Your task to perform on an android device: turn vacation reply on in the gmail app Image 0: 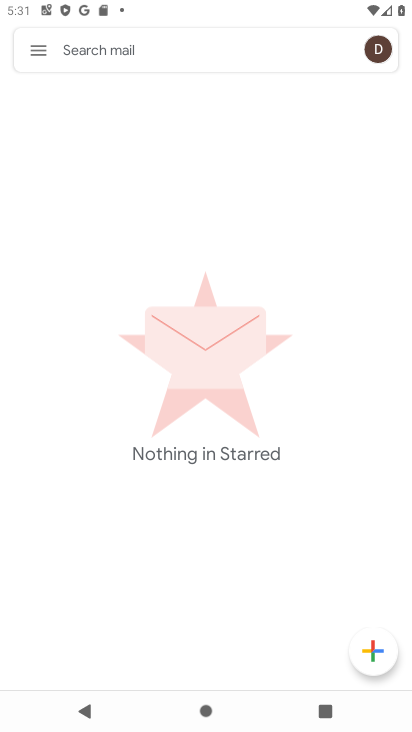
Step 0: press home button
Your task to perform on an android device: turn vacation reply on in the gmail app Image 1: 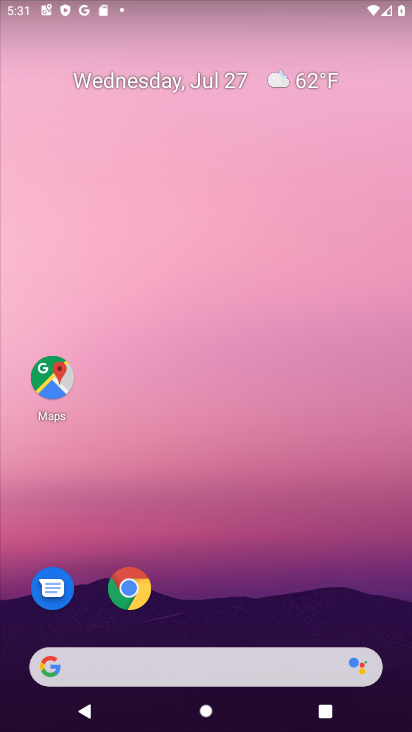
Step 1: drag from (195, 618) to (220, 94)
Your task to perform on an android device: turn vacation reply on in the gmail app Image 2: 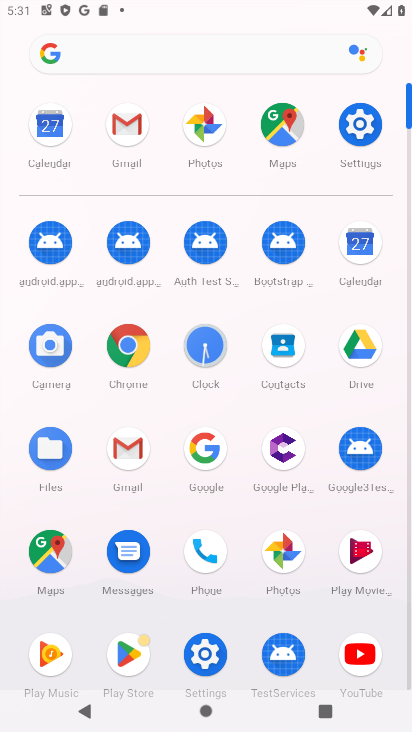
Step 2: click (134, 127)
Your task to perform on an android device: turn vacation reply on in the gmail app Image 3: 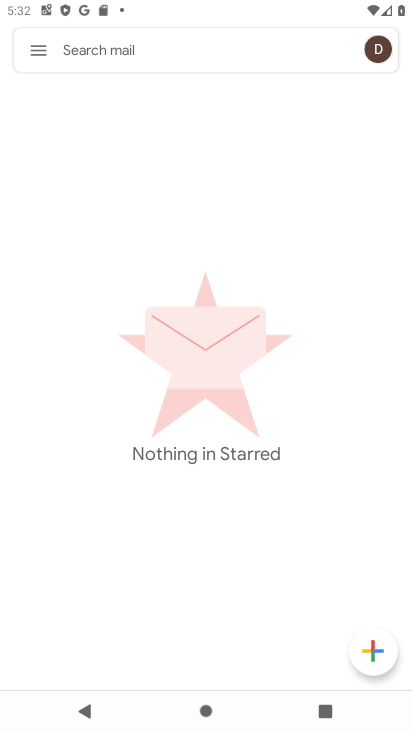
Step 3: click (31, 56)
Your task to perform on an android device: turn vacation reply on in the gmail app Image 4: 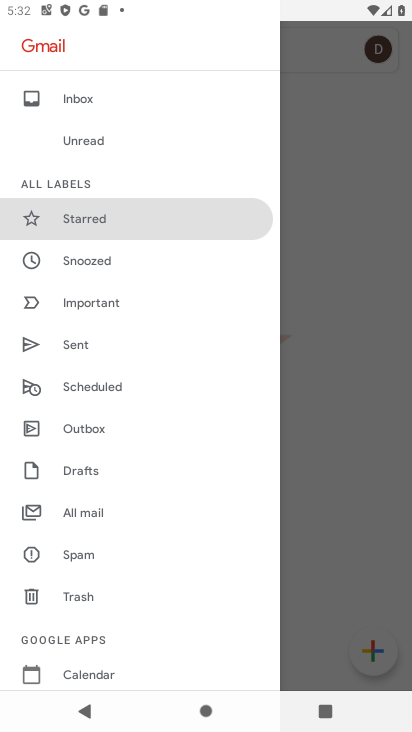
Step 4: drag from (132, 530) to (175, 184)
Your task to perform on an android device: turn vacation reply on in the gmail app Image 5: 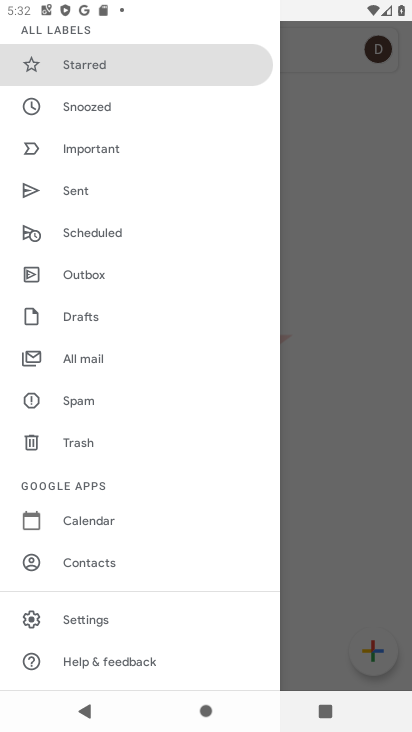
Step 5: click (100, 621)
Your task to perform on an android device: turn vacation reply on in the gmail app Image 6: 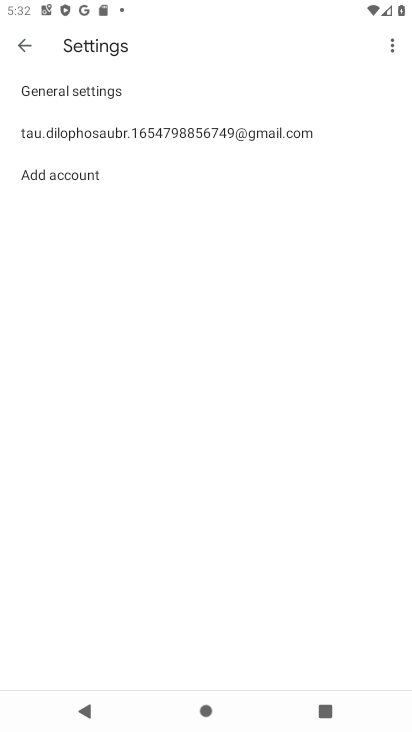
Step 6: click (190, 129)
Your task to perform on an android device: turn vacation reply on in the gmail app Image 7: 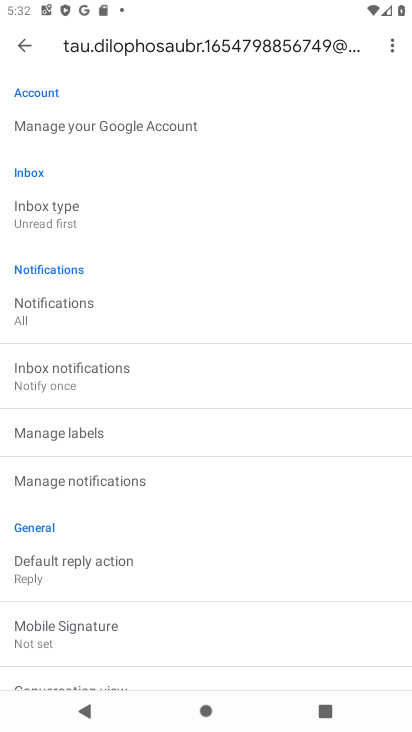
Step 7: drag from (191, 608) to (285, 165)
Your task to perform on an android device: turn vacation reply on in the gmail app Image 8: 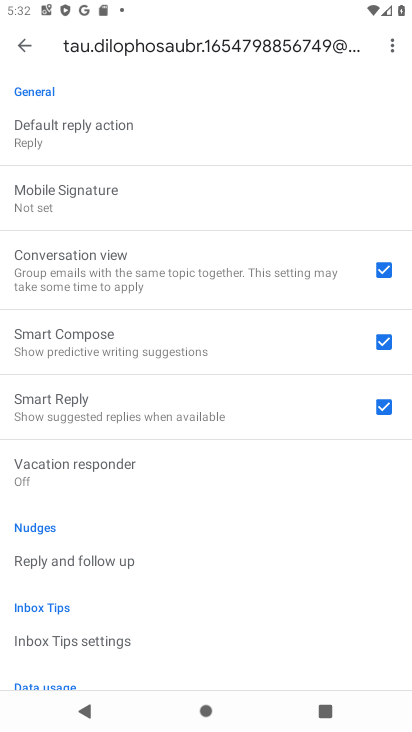
Step 8: click (386, 412)
Your task to perform on an android device: turn vacation reply on in the gmail app Image 9: 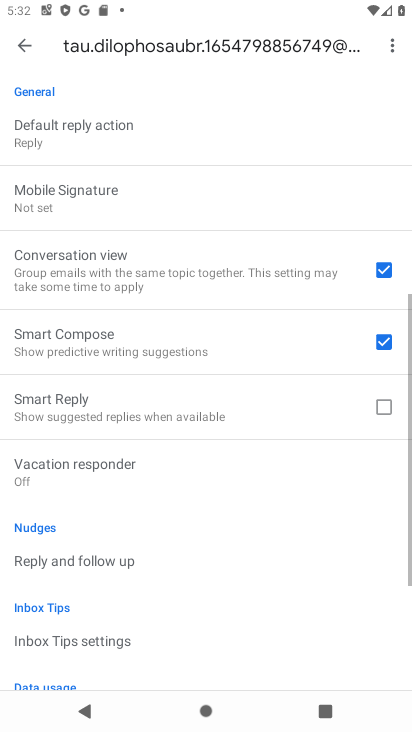
Step 9: click (386, 412)
Your task to perform on an android device: turn vacation reply on in the gmail app Image 10: 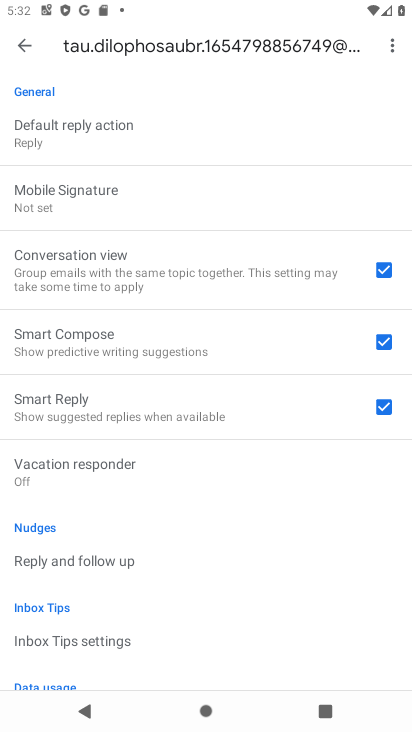
Step 10: task complete